Your task to perform on an android device: turn off data saver in the chrome app Image 0: 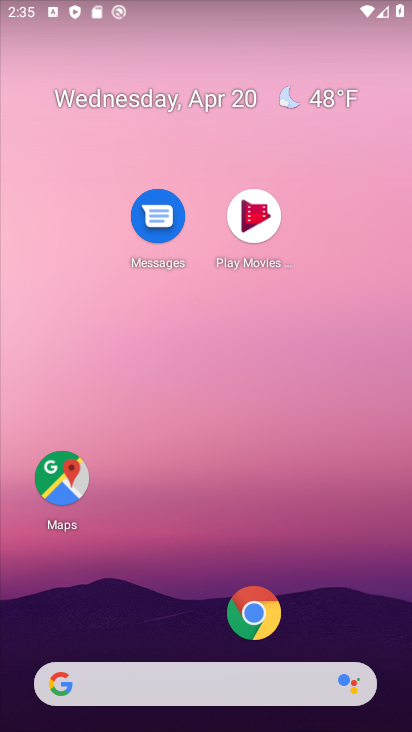
Step 0: click (253, 627)
Your task to perform on an android device: turn off data saver in the chrome app Image 1: 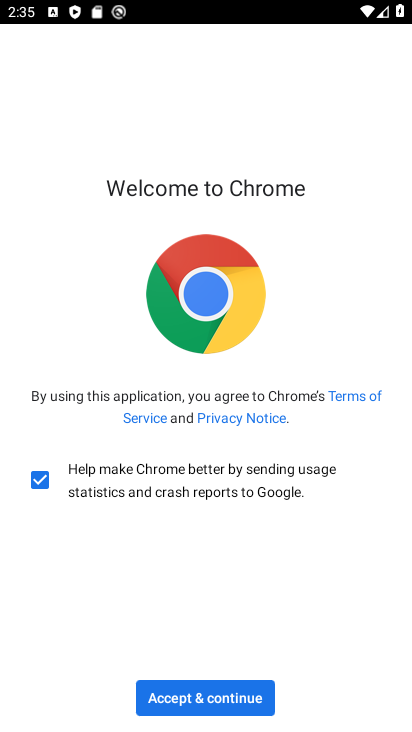
Step 1: click (222, 705)
Your task to perform on an android device: turn off data saver in the chrome app Image 2: 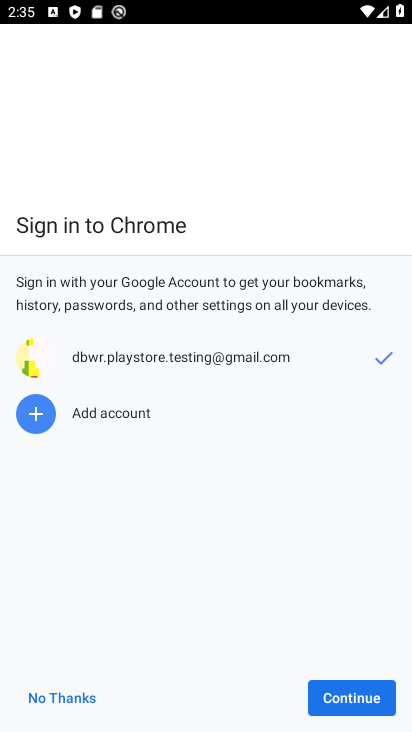
Step 2: click (351, 704)
Your task to perform on an android device: turn off data saver in the chrome app Image 3: 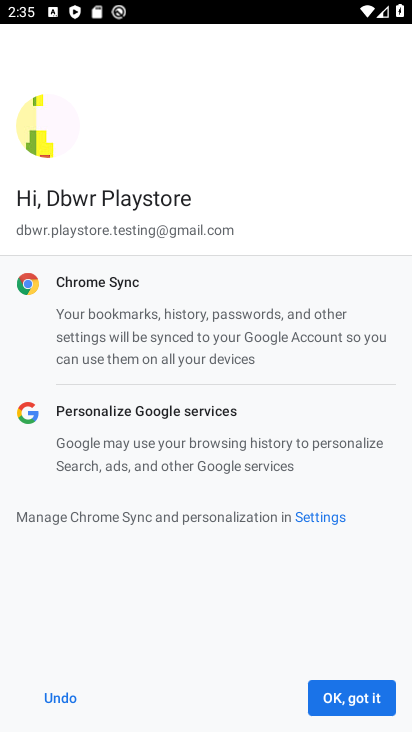
Step 3: click (366, 691)
Your task to perform on an android device: turn off data saver in the chrome app Image 4: 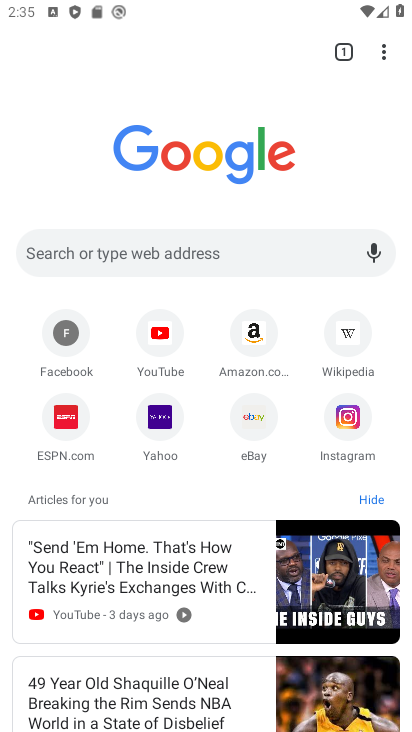
Step 4: click (384, 56)
Your task to perform on an android device: turn off data saver in the chrome app Image 5: 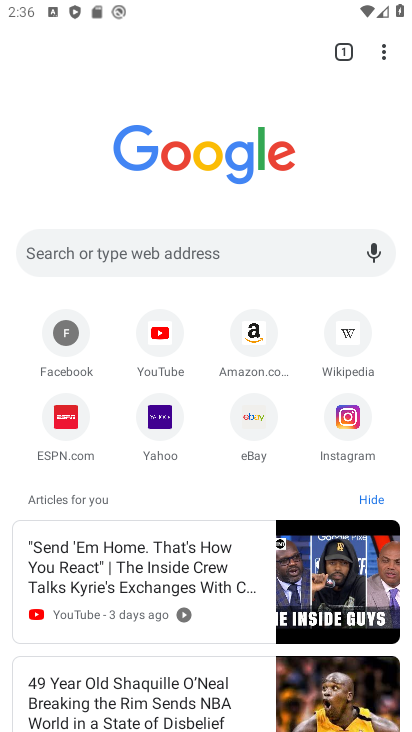
Step 5: click (383, 56)
Your task to perform on an android device: turn off data saver in the chrome app Image 6: 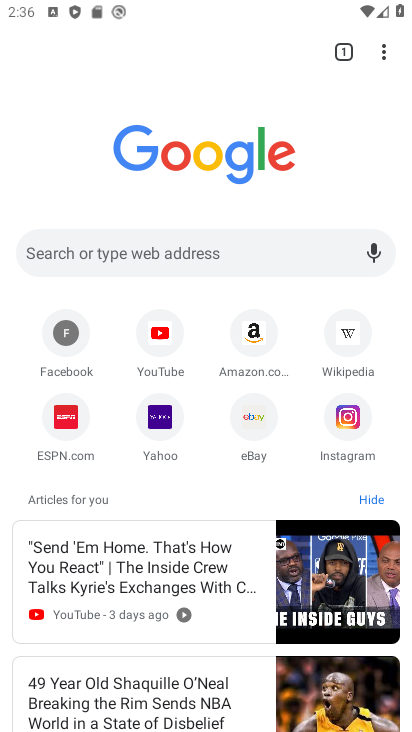
Step 6: click (384, 57)
Your task to perform on an android device: turn off data saver in the chrome app Image 7: 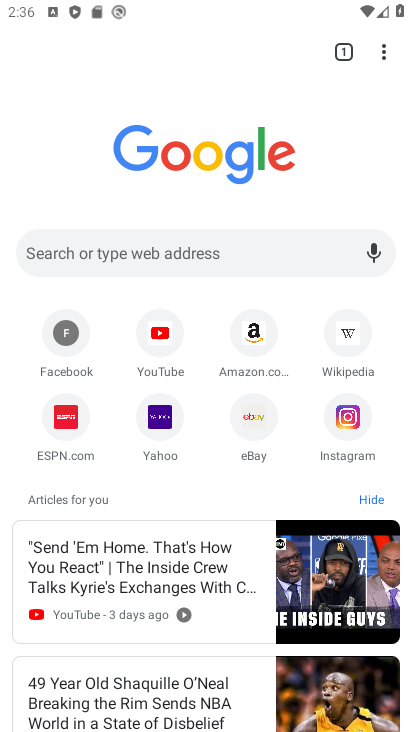
Step 7: click (382, 55)
Your task to perform on an android device: turn off data saver in the chrome app Image 8: 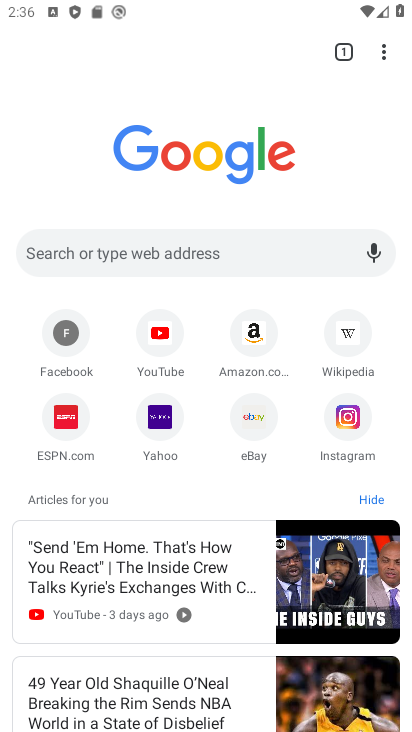
Step 8: click (382, 55)
Your task to perform on an android device: turn off data saver in the chrome app Image 9: 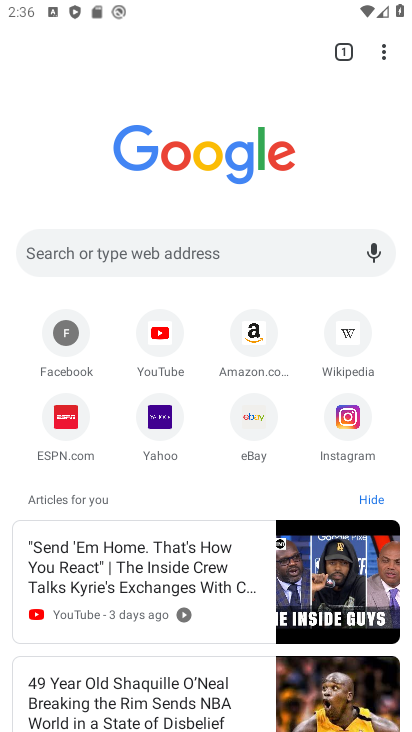
Step 9: click (384, 51)
Your task to perform on an android device: turn off data saver in the chrome app Image 10: 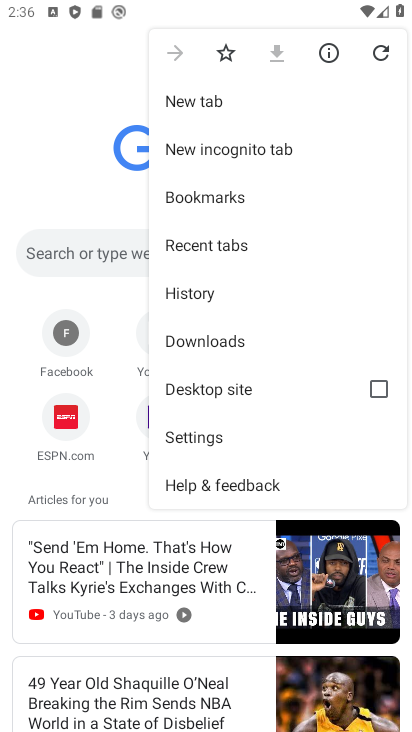
Step 10: click (241, 431)
Your task to perform on an android device: turn off data saver in the chrome app Image 11: 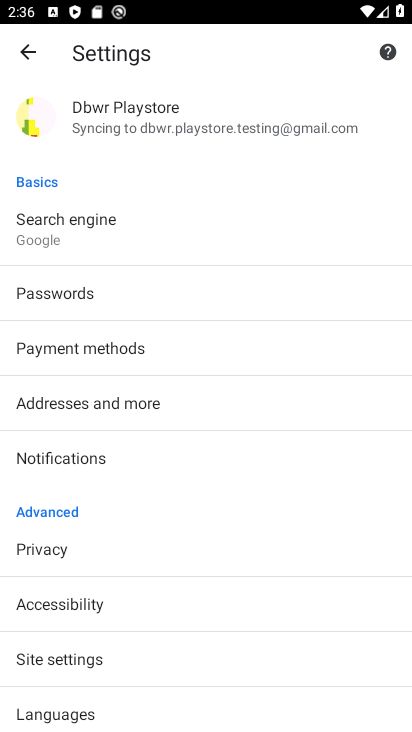
Step 11: task complete